Your task to perform on an android device: empty trash in google photos Image 0: 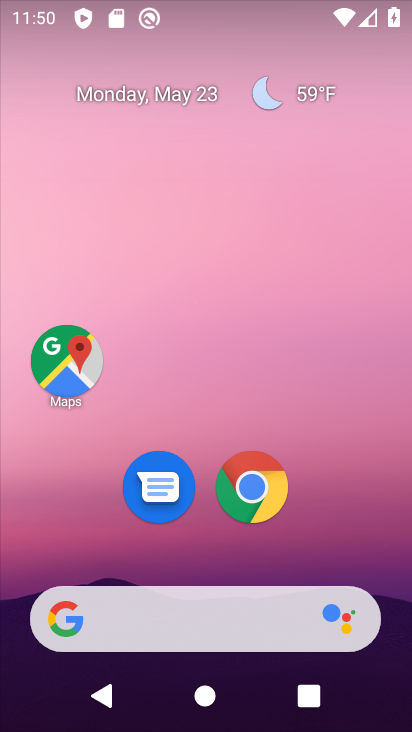
Step 0: drag from (198, 544) to (200, 5)
Your task to perform on an android device: empty trash in google photos Image 1: 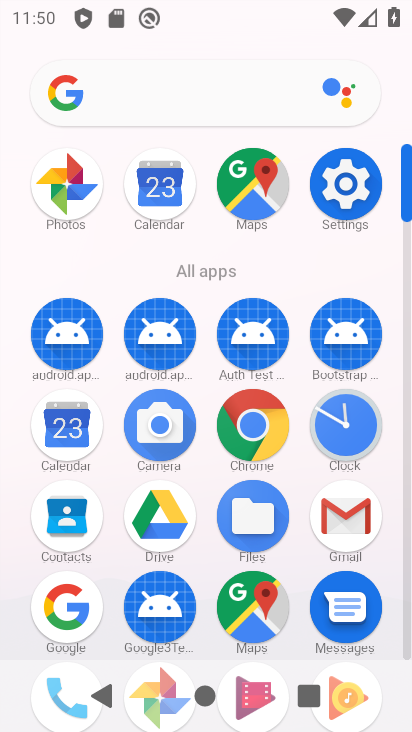
Step 1: click (70, 179)
Your task to perform on an android device: empty trash in google photos Image 2: 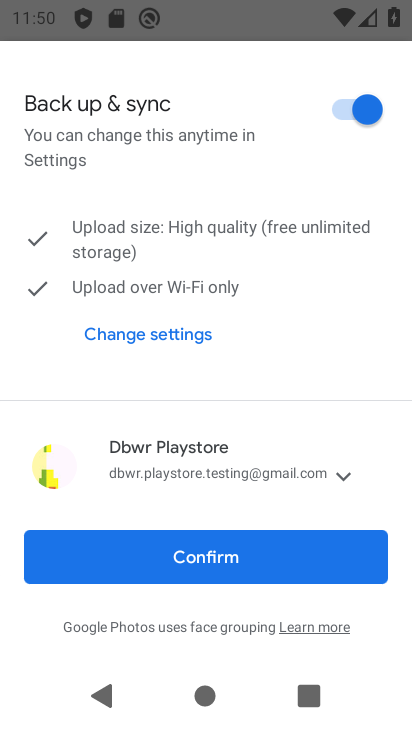
Step 2: click (200, 565)
Your task to perform on an android device: empty trash in google photos Image 3: 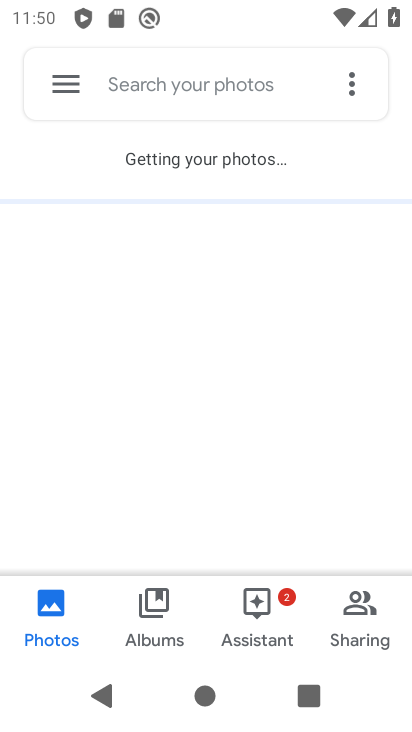
Step 3: click (72, 85)
Your task to perform on an android device: empty trash in google photos Image 4: 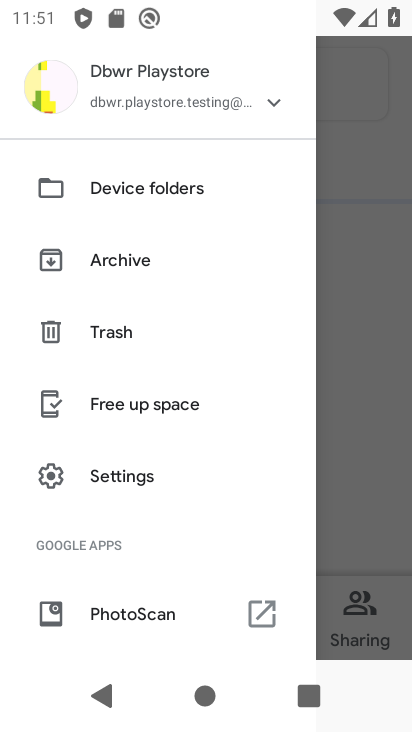
Step 4: click (109, 351)
Your task to perform on an android device: empty trash in google photos Image 5: 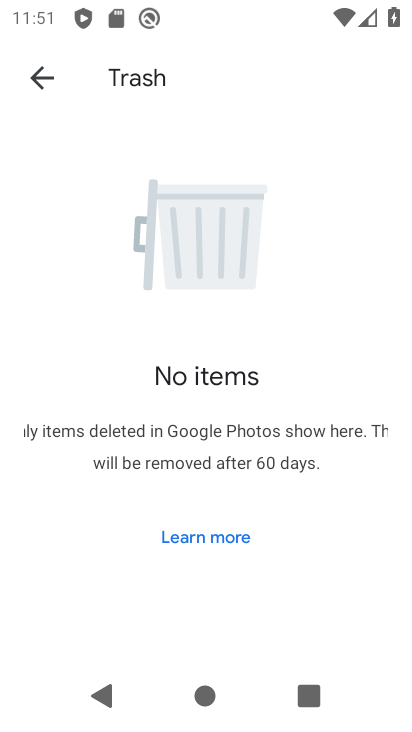
Step 5: task complete